Your task to perform on an android device: Show me popular games on the Play Store Image 0: 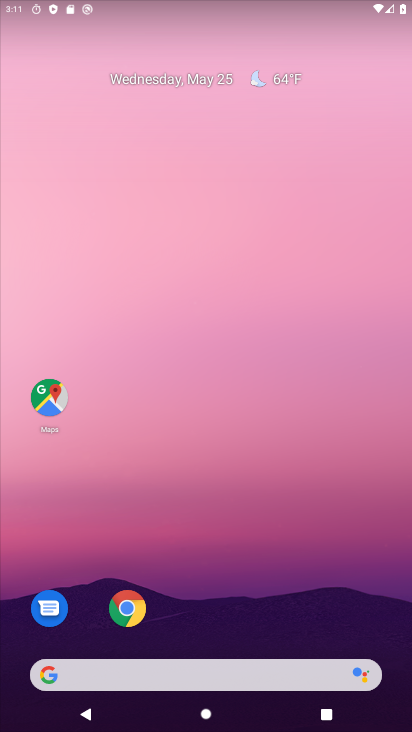
Step 0: drag from (257, 590) to (236, 259)
Your task to perform on an android device: Show me popular games on the Play Store Image 1: 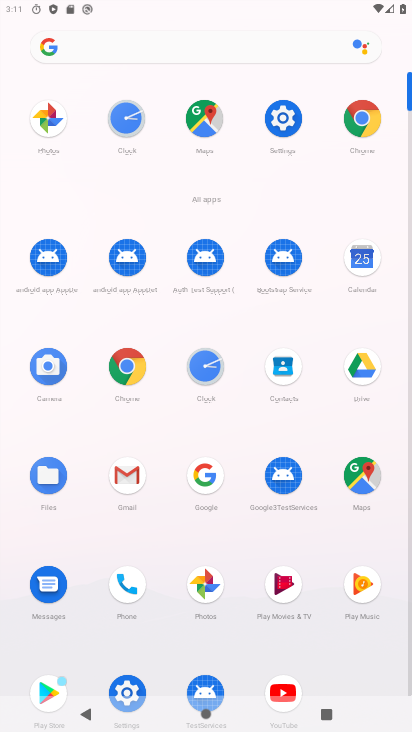
Step 1: click (50, 697)
Your task to perform on an android device: Show me popular games on the Play Store Image 2: 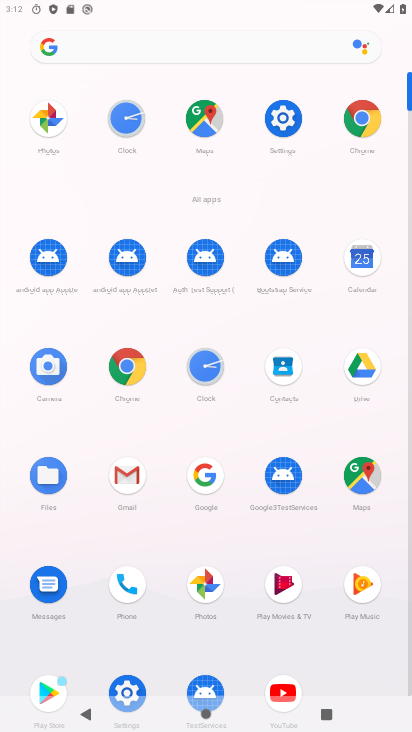
Step 2: click (51, 689)
Your task to perform on an android device: Show me popular games on the Play Store Image 3: 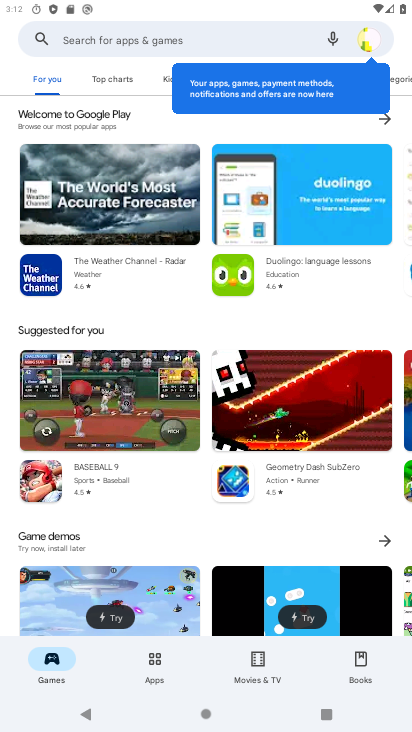
Step 3: task complete